Your task to perform on an android device: Open display settings Image 0: 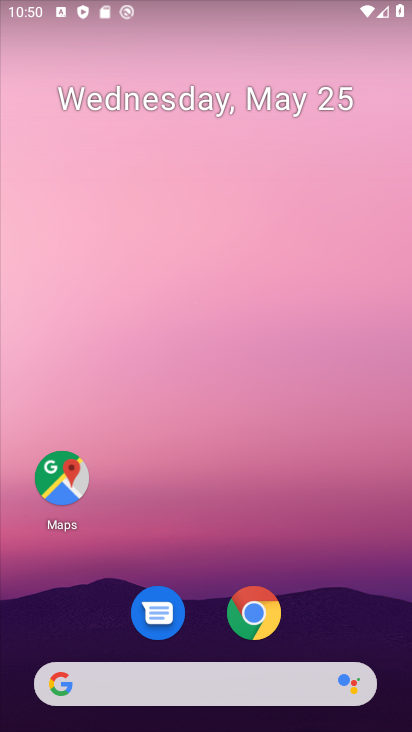
Step 0: drag from (224, 485) to (236, 78)
Your task to perform on an android device: Open display settings Image 1: 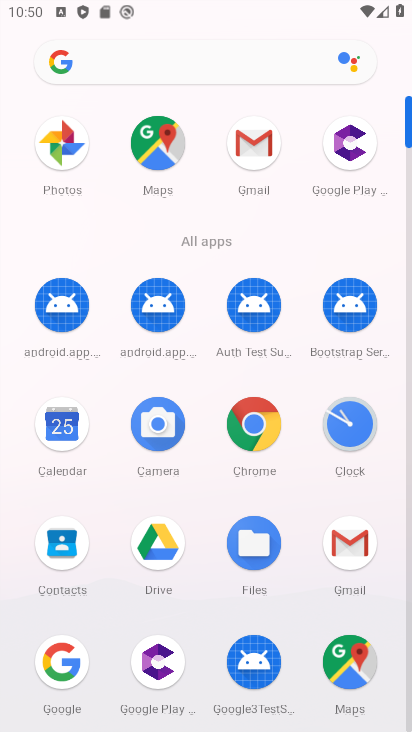
Step 1: drag from (334, 473) to (340, 29)
Your task to perform on an android device: Open display settings Image 2: 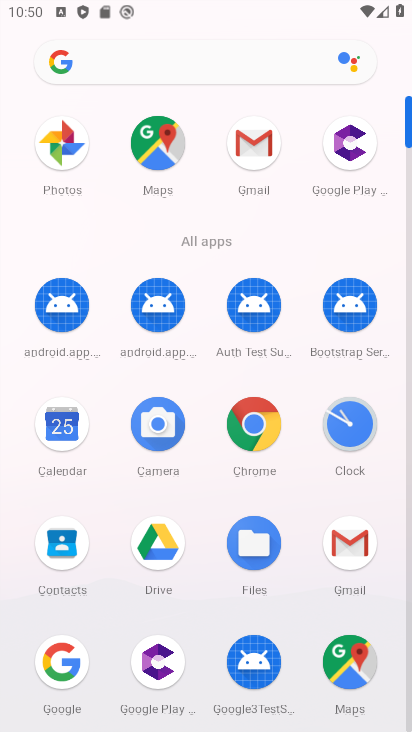
Step 2: drag from (191, 474) to (216, 20)
Your task to perform on an android device: Open display settings Image 3: 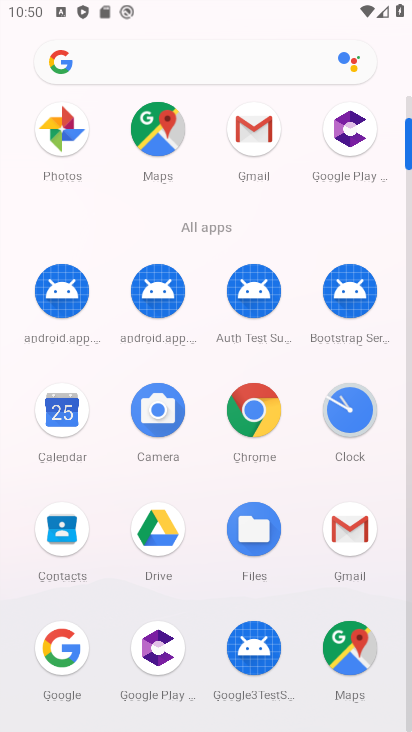
Step 3: drag from (347, 471) to (356, 47)
Your task to perform on an android device: Open display settings Image 4: 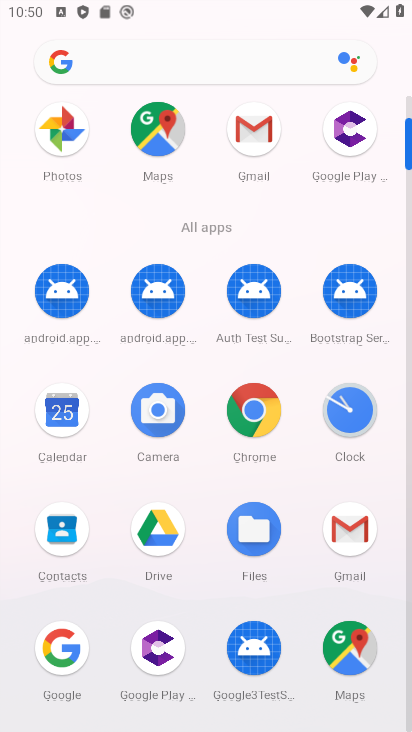
Step 4: drag from (201, 306) to (211, 203)
Your task to perform on an android device: Open display settings Image 5: 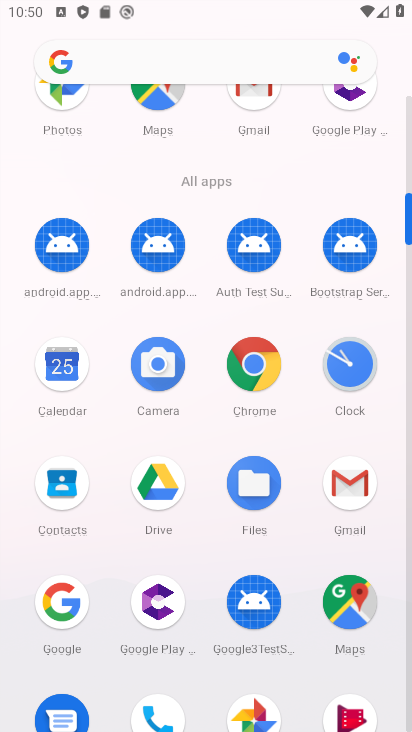
Step 5: drag from (202, 487) to (244, 153)
Your task to perform on an android device: Open display settings Image 6: 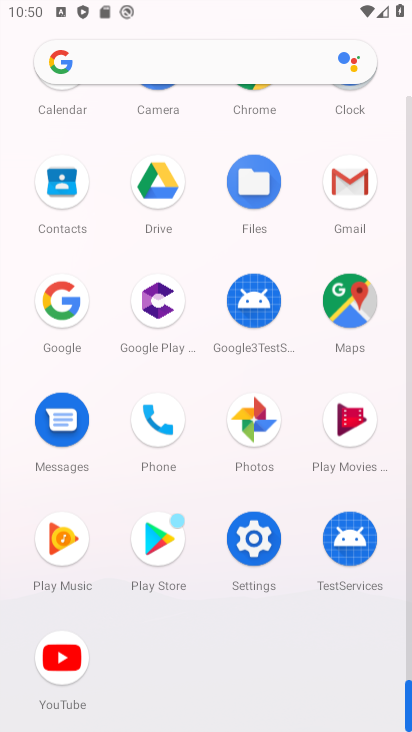
Step 6: click (257, 567)
Your task to perform on an android device: Open display settings Image 7: 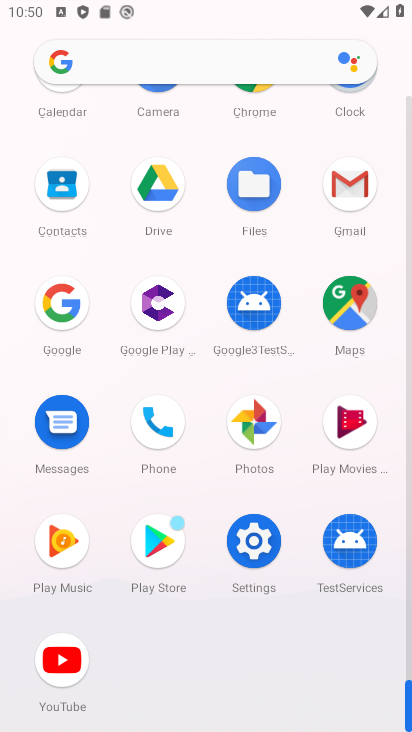
Step 7: click (263, 565)
Your task to perform on an android device: Open display settings Image 8: 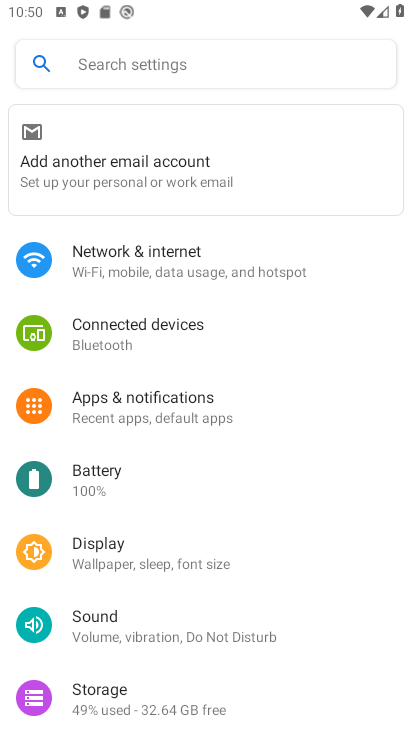
Step 8: click (165, 553)
Your task to perform on an android device: Open display settings Image 9: 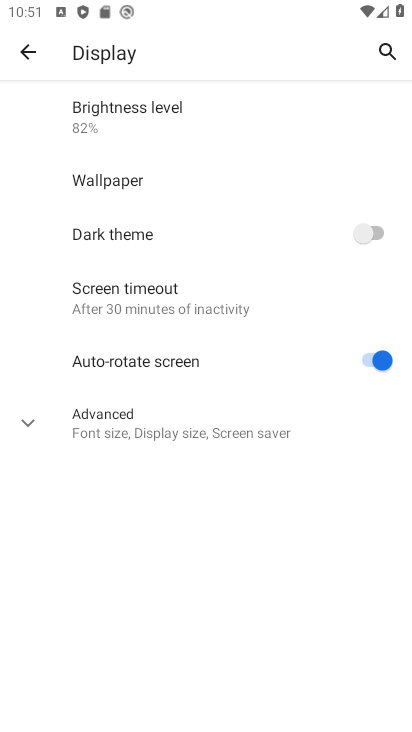
Step 9: task complete